Your task to perform on an android device: turn off notifications in google photos Image 0: 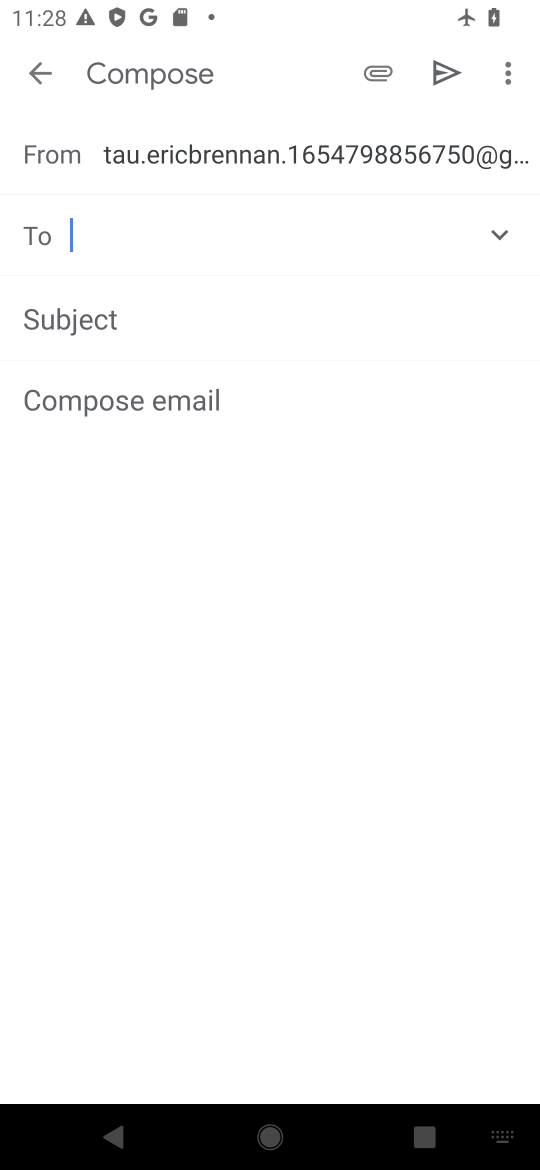
Step 0: press home button
Your task to perform on an android device: turn off notifications in google photos Image 1: 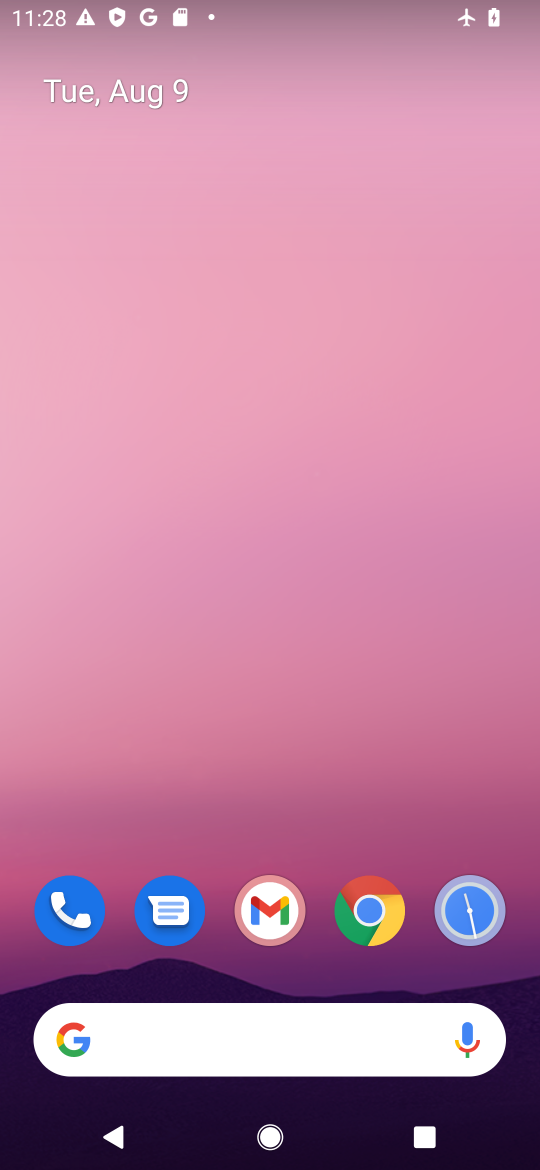
Step 1: drag from (75, 558) to (201, 110)
Your task to perform on an android device: turn off notifications in google photos Image 2: 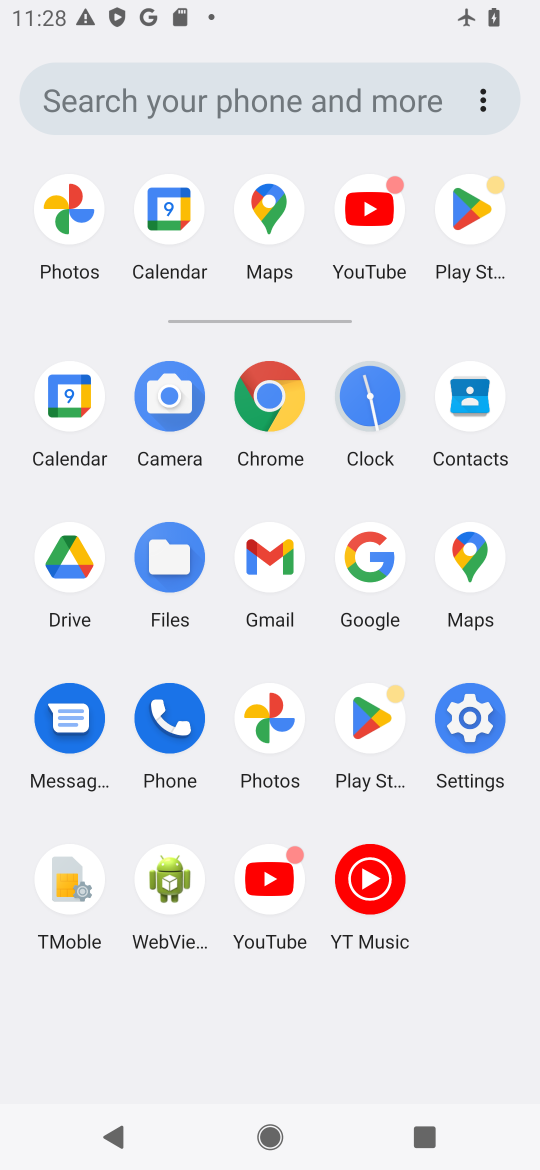
Step 2: click (471, 728)
Your task to perform on an android device: turn off notifications in google photos Image 3: 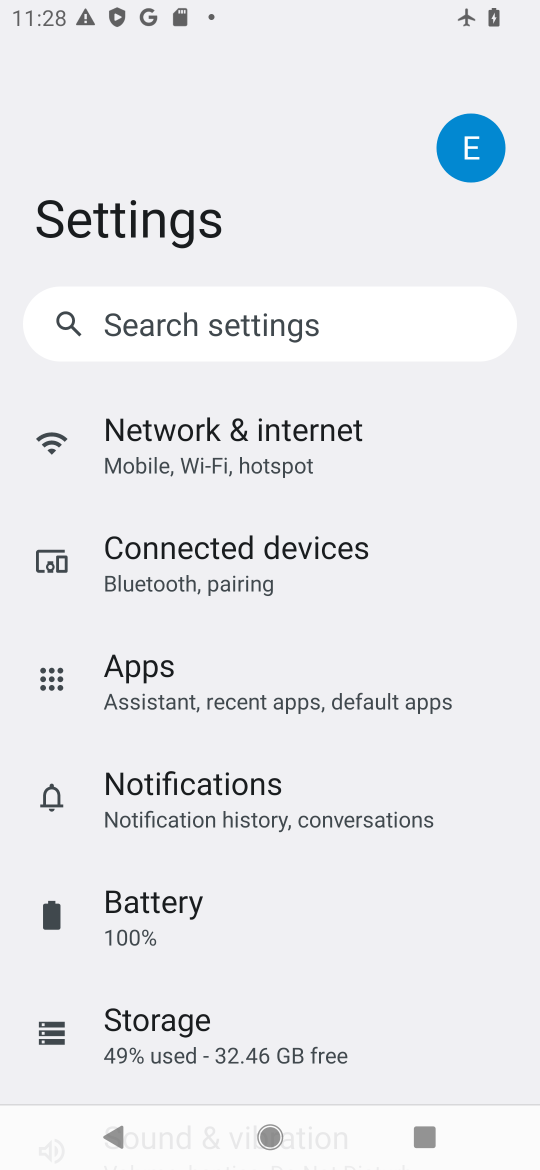
Step 3: click (282, 774)
Your task to perform on an android device: turn off notifications in google photos Image 4: 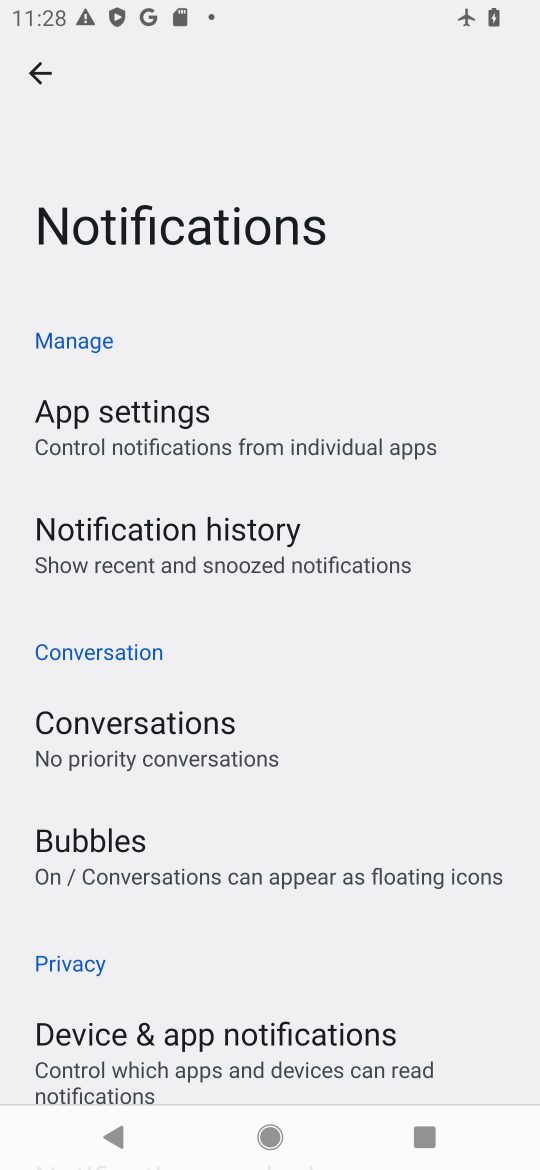
Step 4: click (94, 734)
Your task to perform on an android device: turn off notifications in google photos Image 5: 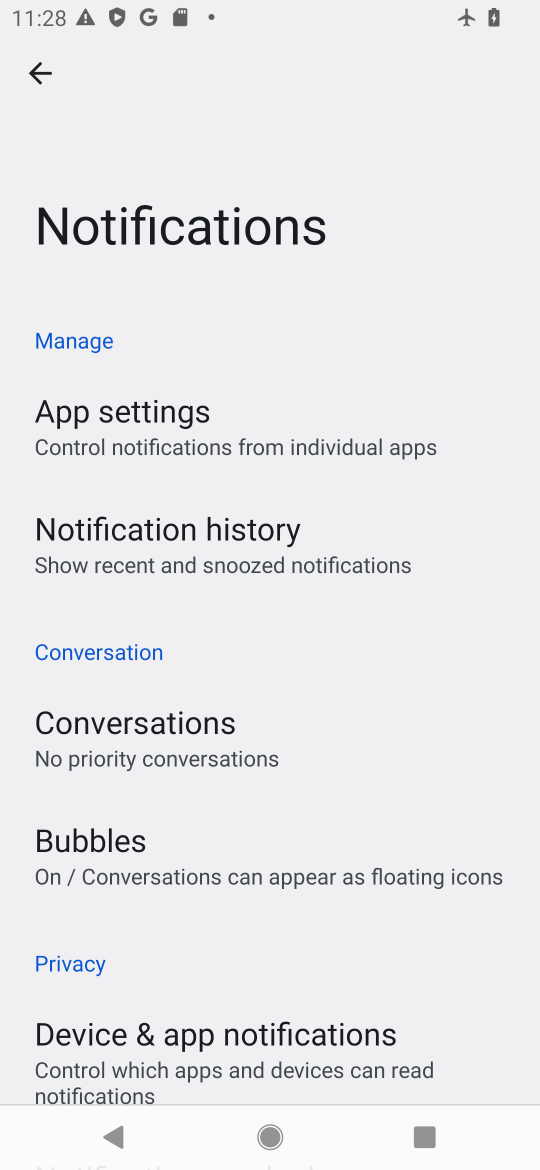
Step 5: click (396, 1032)
Your task to perform on an android device: turn off notifications in google photos Image 6: 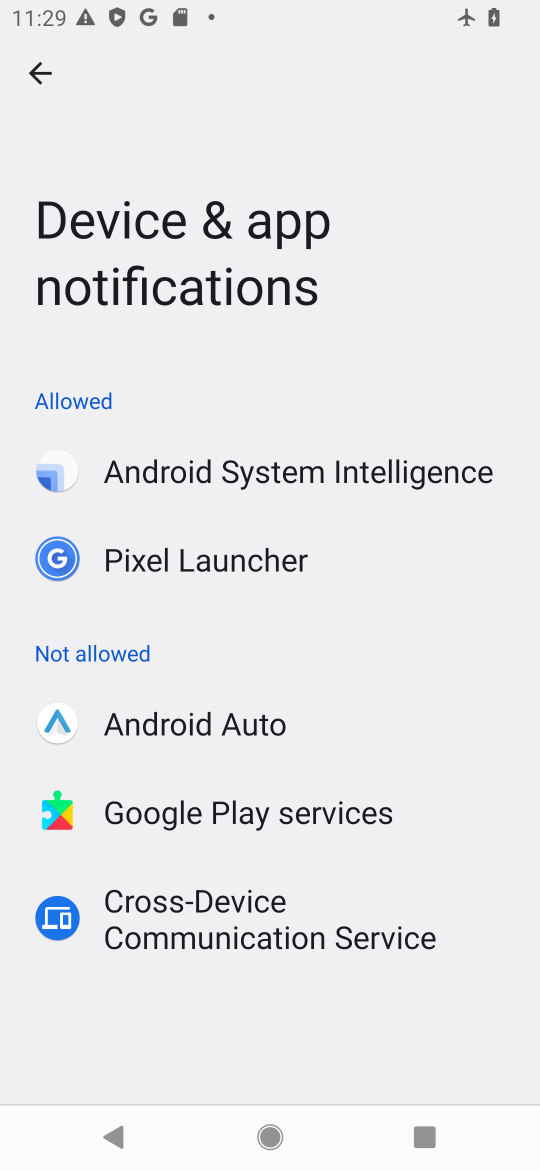
Step 6: task complete